Your task to perform on an android device: Open the stopwatch Image 0: 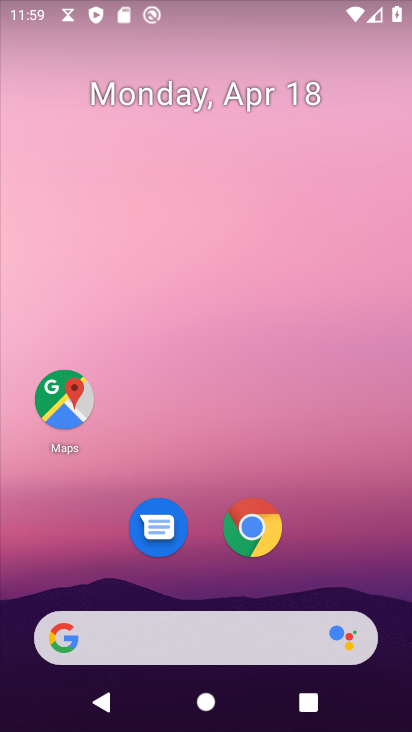
Step 0: drag from (353, 570) to (372, 9)
Your task to perform on an android device: Open the stopwatch Image 1: 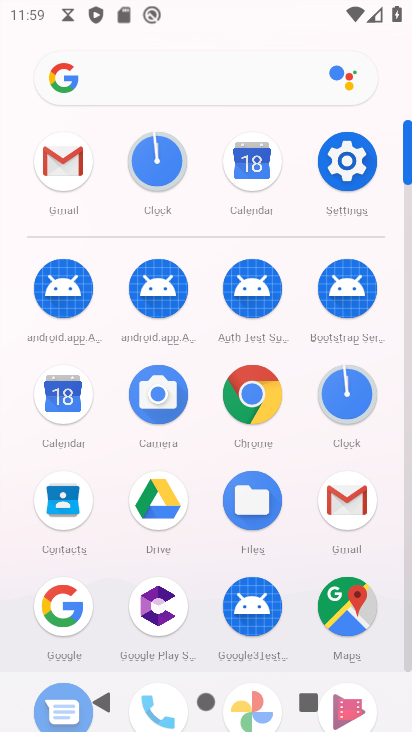
Step 1: click (340, 398)
Your task to perform on an android device: Open the stopwatch Image 2: 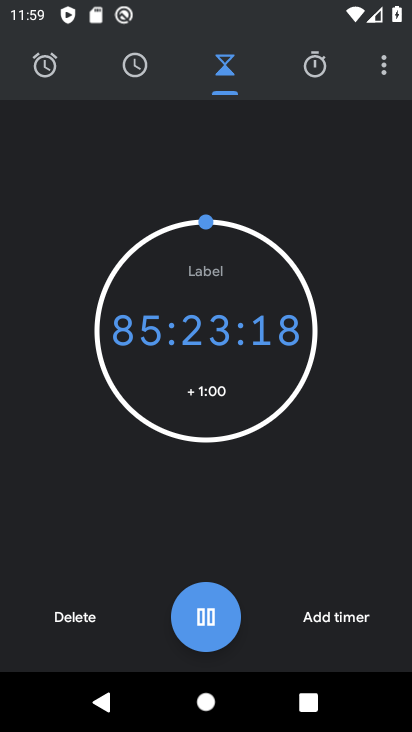
Step 2: click (303, 56)
Your task to perform on an android device: Open the stopwatch Image 3: 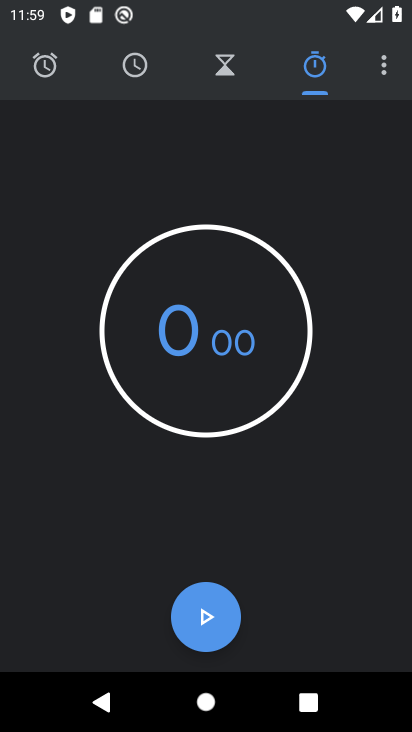
Step 3: task complete